Your task to perform on an android device: Search for Mexican restaurants on Maps Image 0: 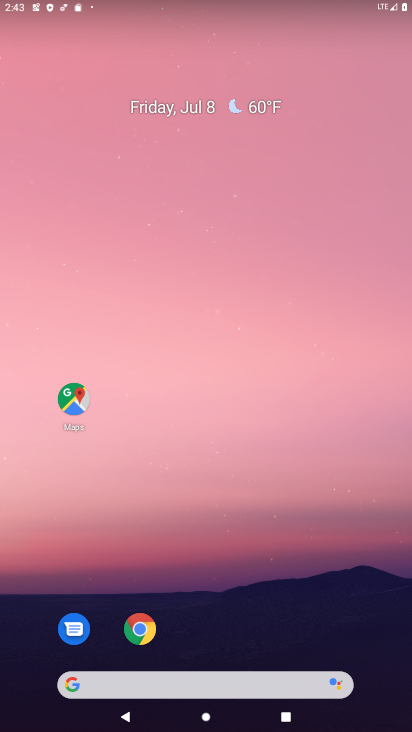
Step 0: click (80, 411)
Your task to perform on an android device: Search for Mexican restaurants on Maps Image 1: 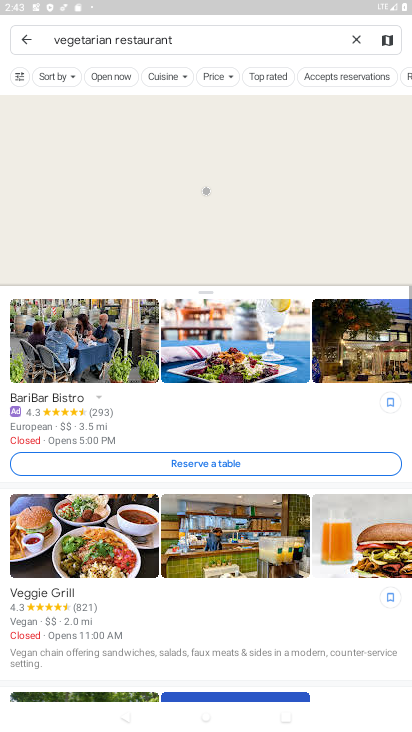
Step 1: click (220, 42)
Your task to perform on an android device: Search for Mexican restaurants on Maps Image 2: 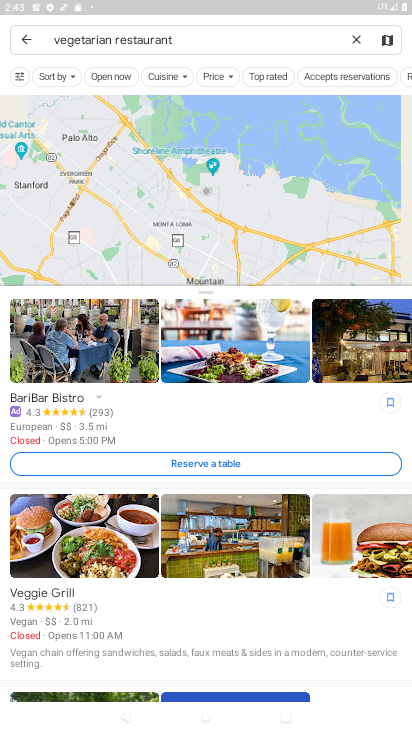
Step 2: click (355, 43)
Your task to perform on an android device: Search for Mexican restaurants on Maps Image 3: 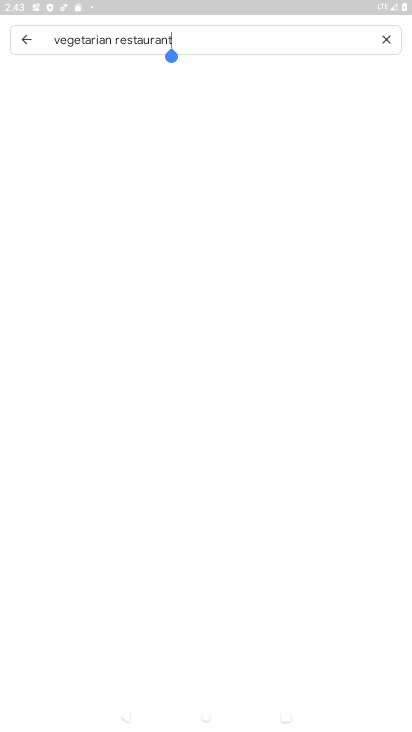
Step 3: click (382, 38)
Your task to perform on an android device: Search for Mexican restaurants on Maps Image 4: 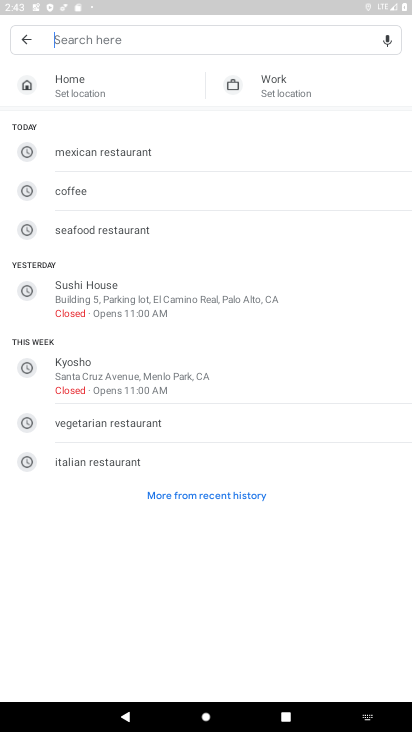
Step 4: click (221, 39)
Your task to perform on an android device: Search for Mexican restaurants on Maps Image 5: 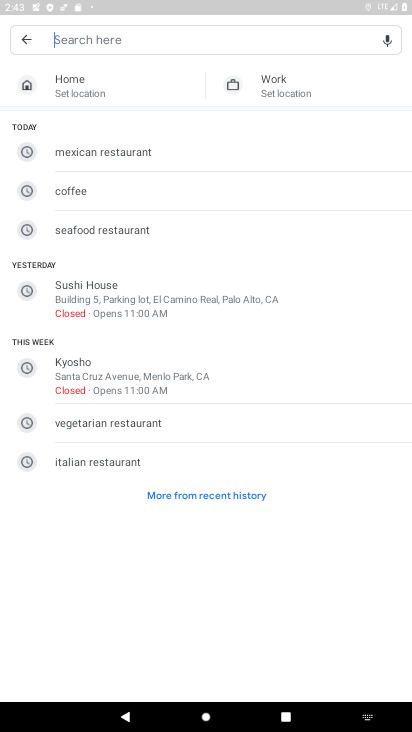
Step 5: click (110, 156)
Your task to perform on an android device: Search for Mexican restaurants on Maps Image 6: 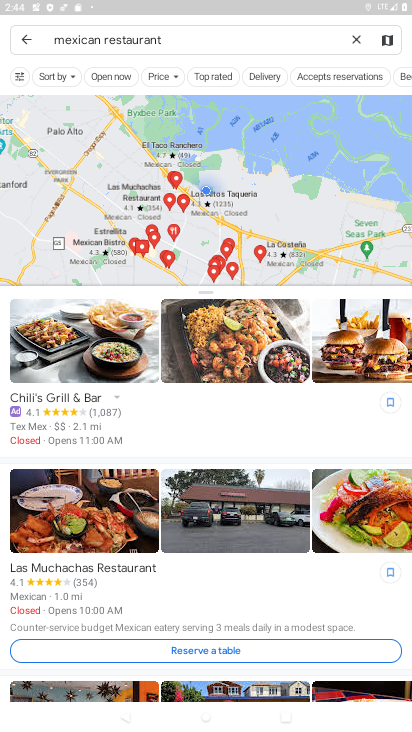
Step 6: task complete